Your task to perform on an android device: see sites visited before in the chrome app Image 0: 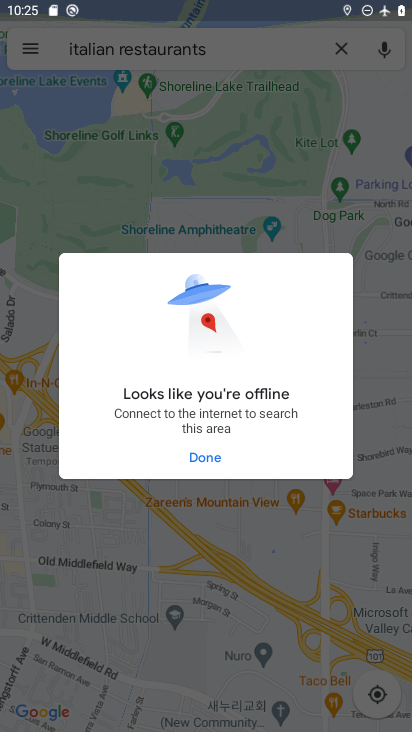
Step 0: press home button
Your task to perform on an android device: see sites visited before in the chrome app Image 1: 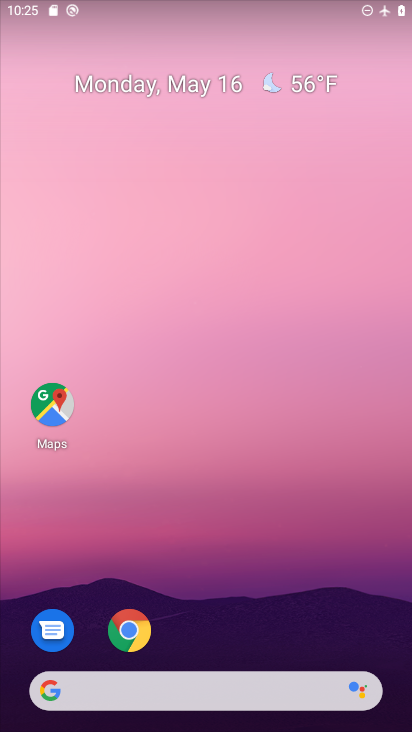
Step 1: click (136, 627)
Your task to perform on an android device: see sites visited before in the chrome app Image 2: 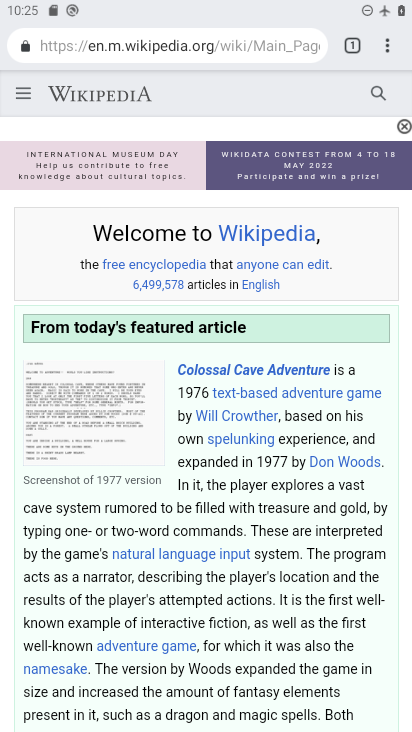
Step 2: click (386, 47)
Your task to perform on an android device: see sites visited before in the chrome app Image 3: 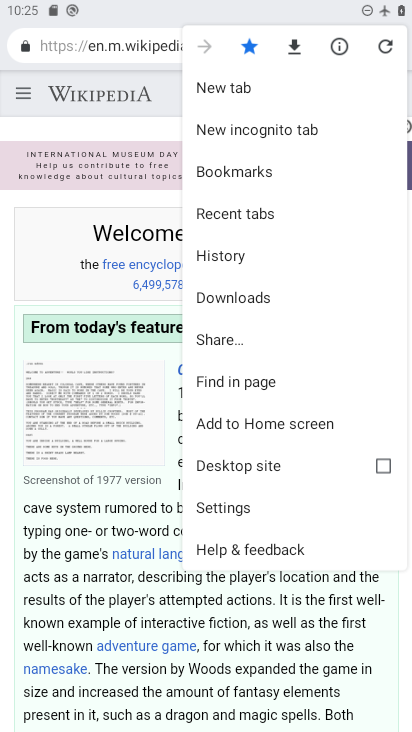
Step 3: click (263, 209)
Your task to perform on an android device: see sites visited before in the chrome app Image 4: 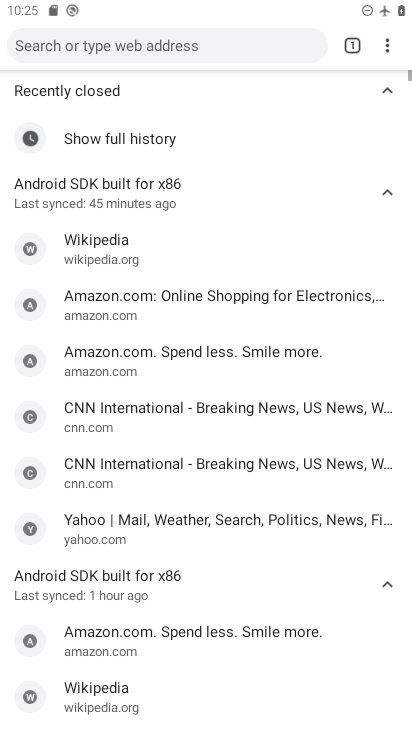
Step 4: task complete